Your task to perform on an android device: toggle notifications settings in the gmail app Image 0: 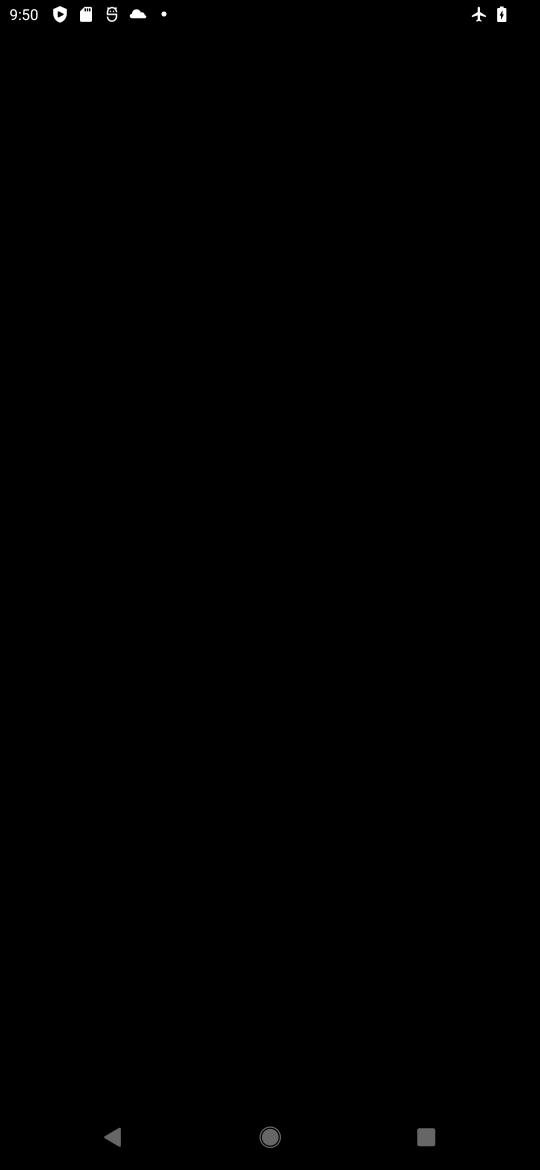
Step 0: press home button
Your task to perform on an android device: toggle notifications settings in the gmail app Image 1: 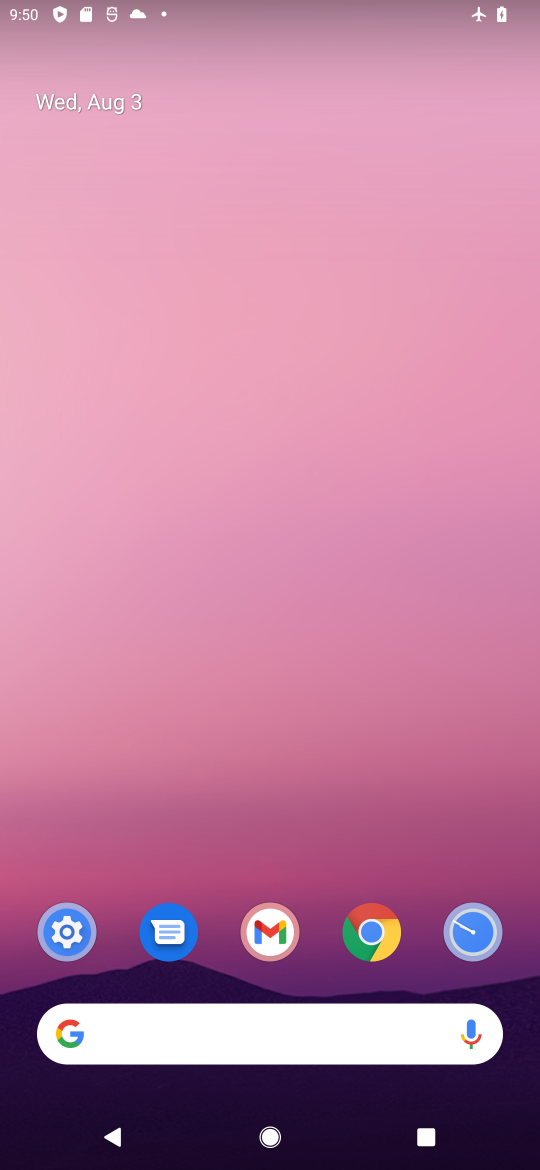
Step 1: click (280, 941)
Your task to perform on an android device: toggle notifications settings in the gmail app Image 2: 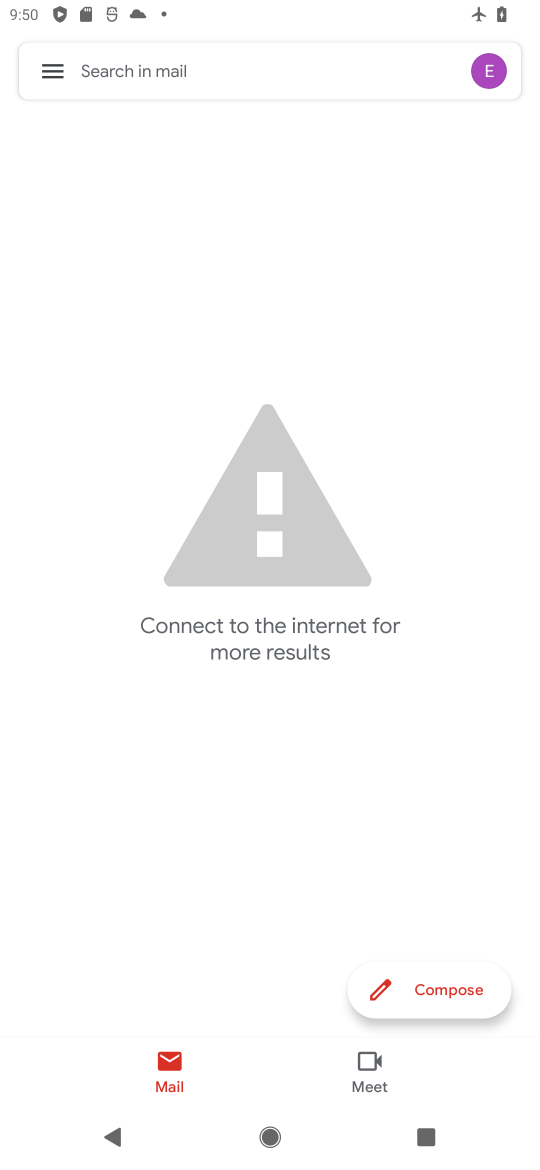
Step 2: click (62, 62)
Your task to perform on an android device: toggle notifications settings in the gmail app Image 3: 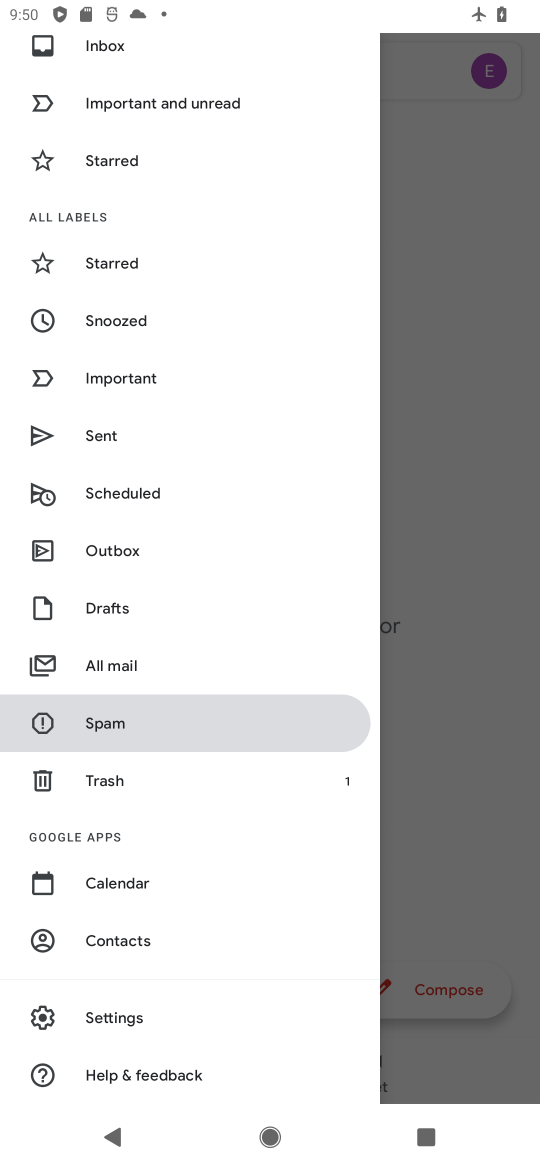
Step 3: click (178, 1019)
Your task to perform on an android device: toggle notifications settings in the gmail app Image 4: 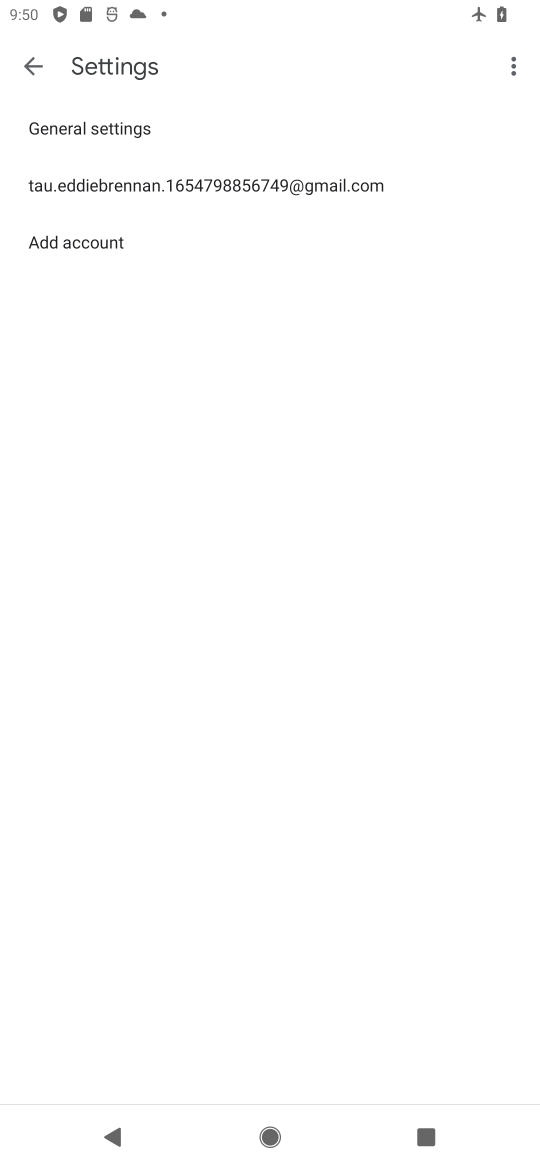
Step 4: click (252, 194)
Your task to perform on an android device: toggle notifications settings in the gmail app Image 5: 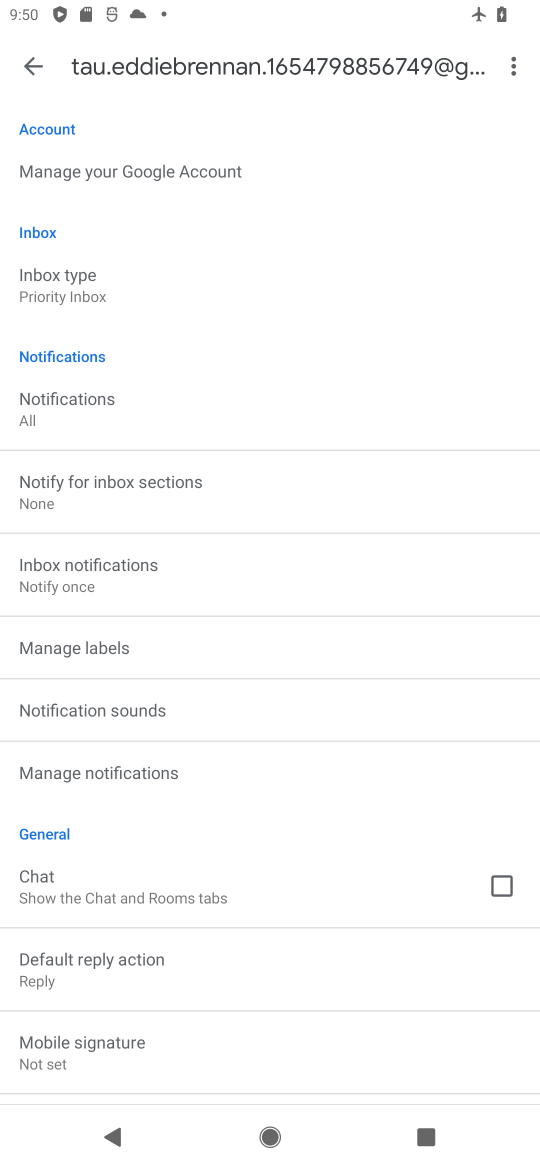
Step 5: click (228, 768)
Your task to perform on an android device: toggle notifications settings in the gmail app Image 6: 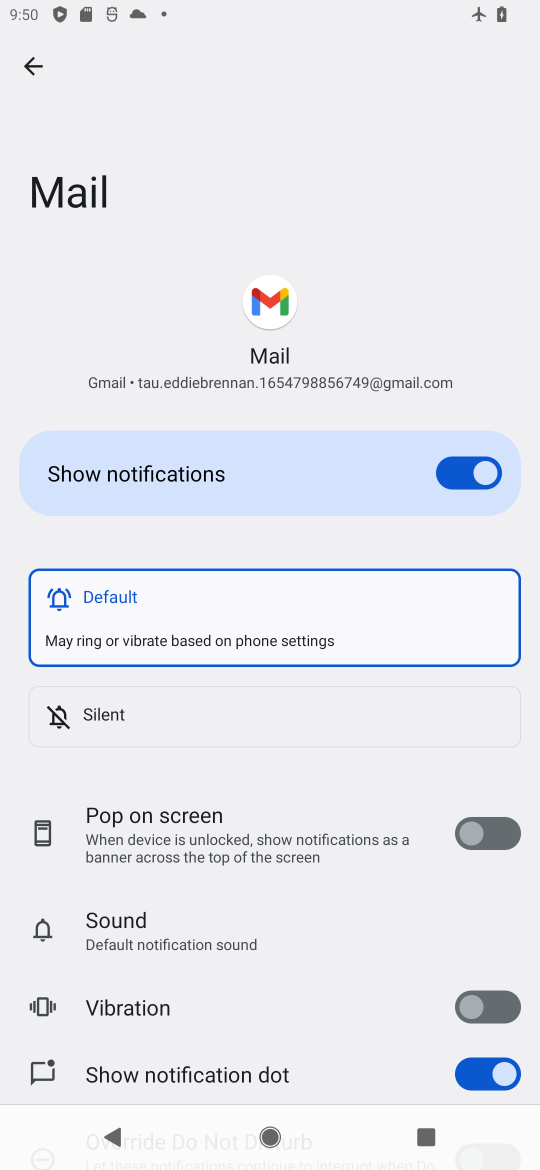
Step 6: drag from (374, 1036) to (339, 241)
Your task to perform on an android device: toggle notifications settings in the gmail app Image 7: 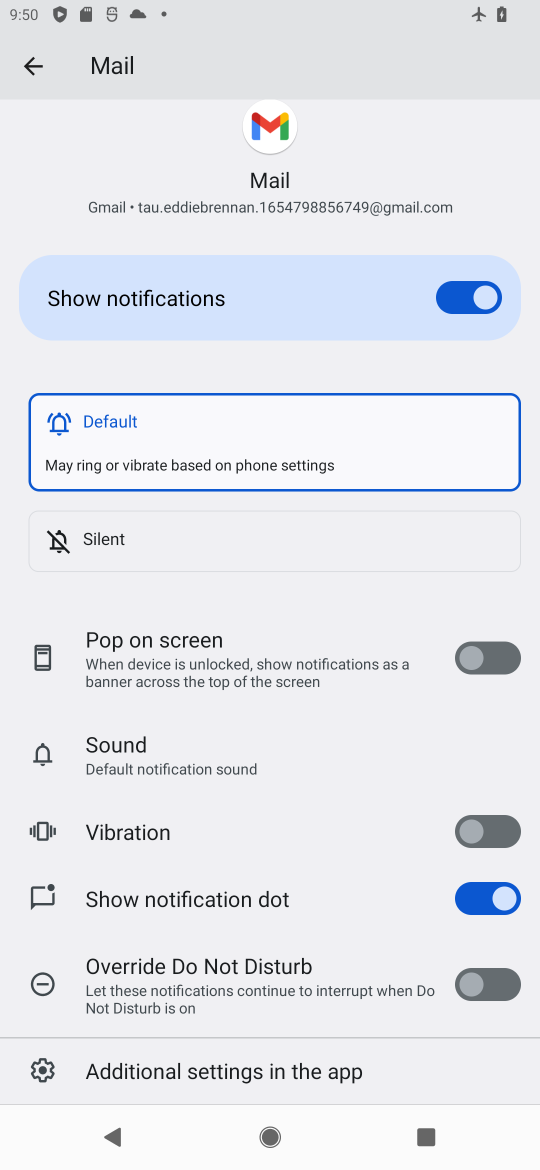
Step 7: click (481, 667)
Your task to perform on an android device: toggle notifications settings in the gmail app Image 8: 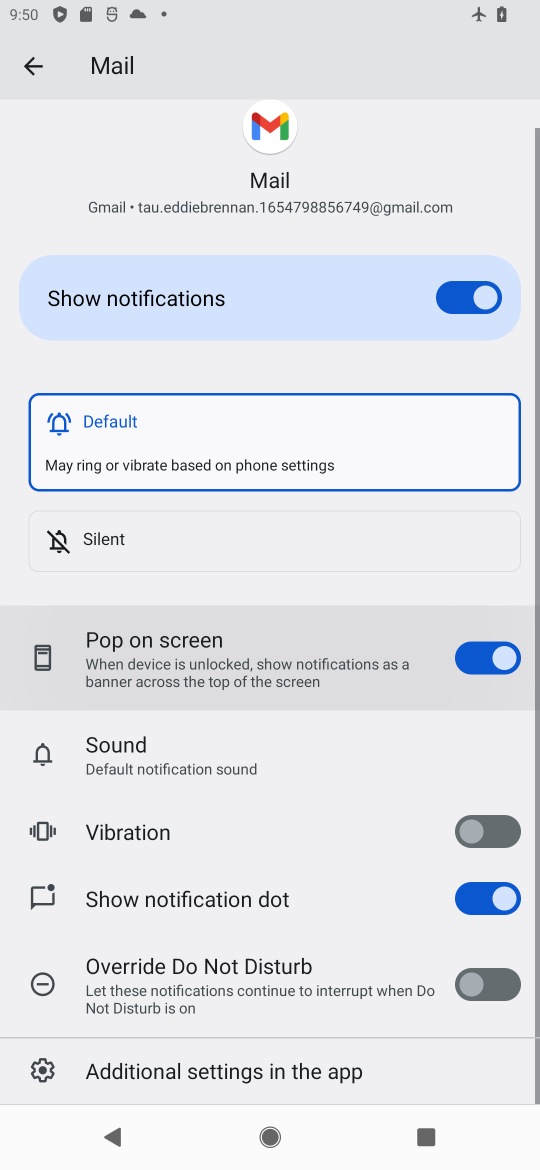
Step 8: click (491, 851)
Your task to perform on an android device: toggle notifications settings in the gmail app Image 9: 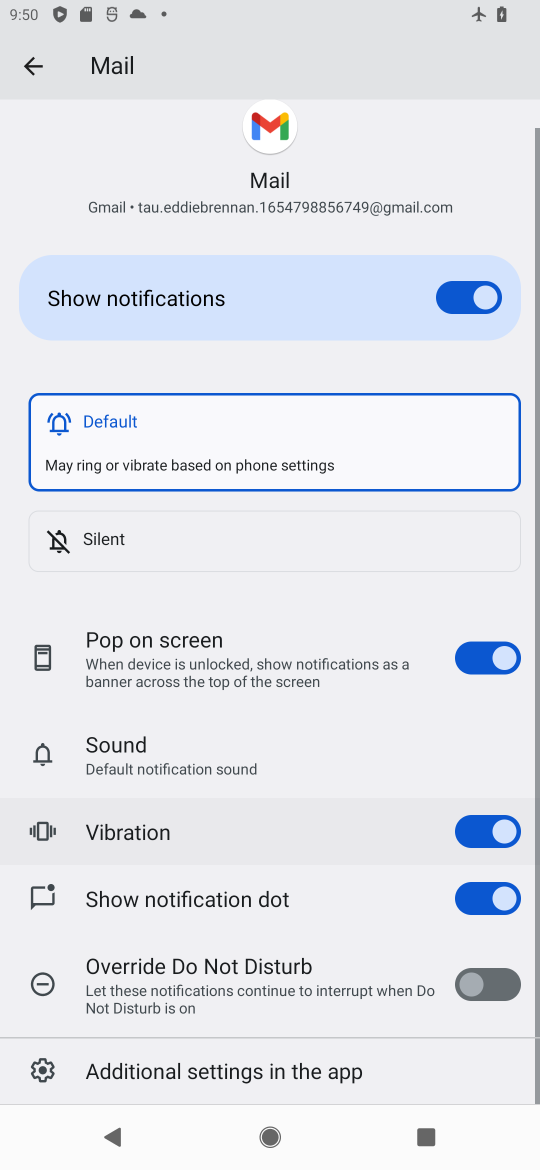
Step 9: click (492, 897)
Your task to perform on an android device: toggle notifications settings in the gmail app Image 10: 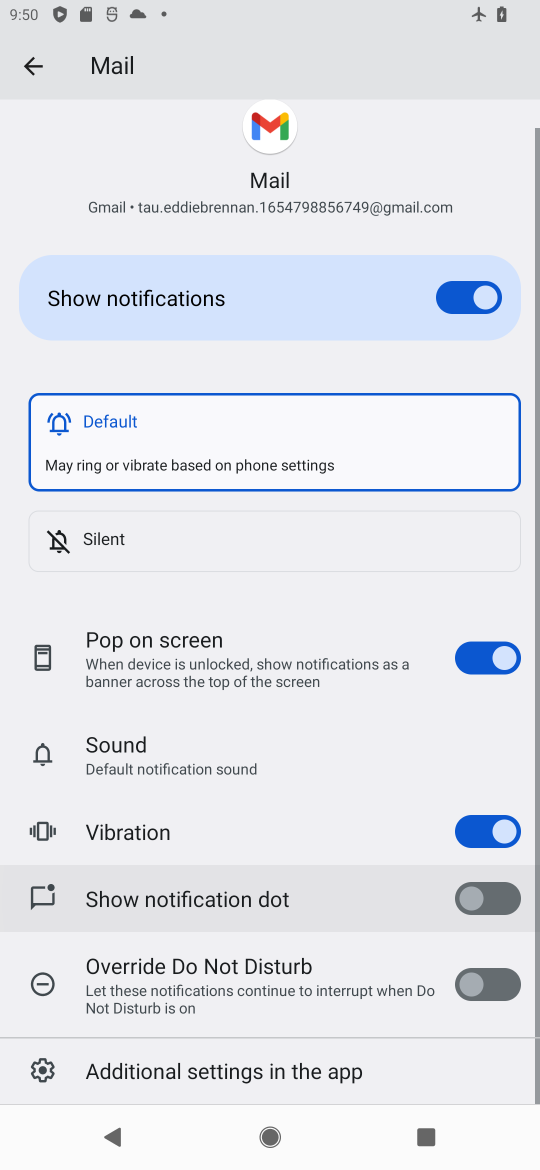
Step 10: click (496, 1000)
Your task to perform on an android device: toggle notifications settings in the gmail app Image 11: 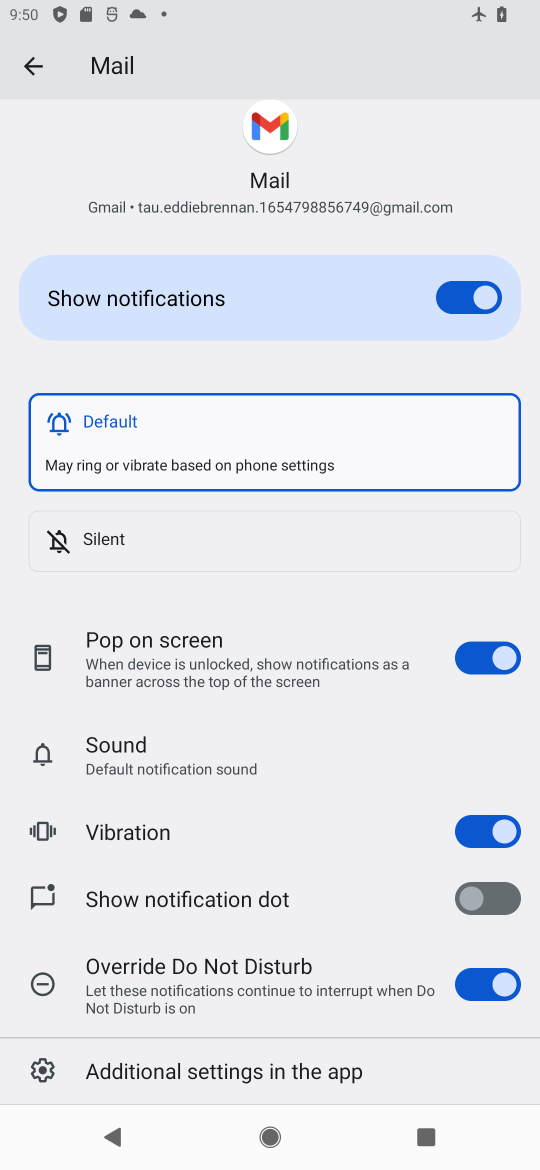
Step 11: click (505, 997)
Your task to perform on an android device: toggle notifications settings in the gmail app Image 12: 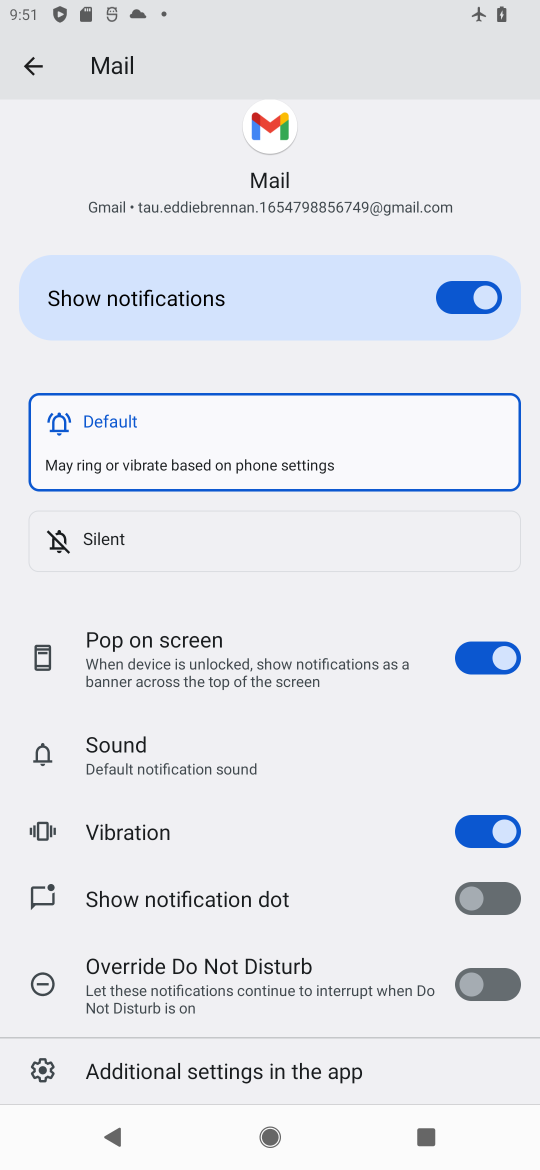
Step 12: task complete